Your task to perform on an android device: change keyboard looks Image 0: 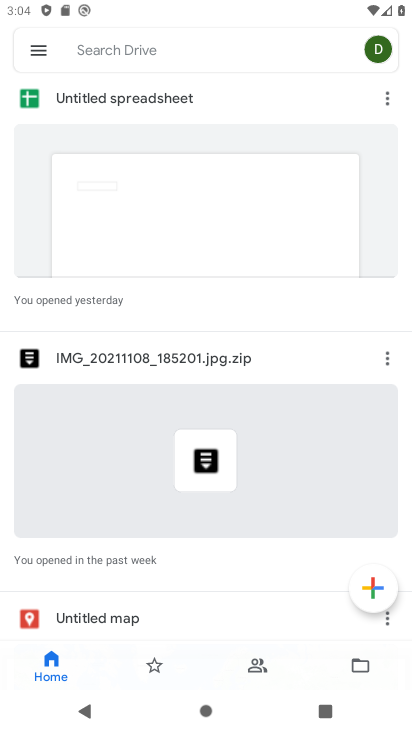
Step 0: press home button
Your task to perform on an android device: change keyboard looks Image 1: 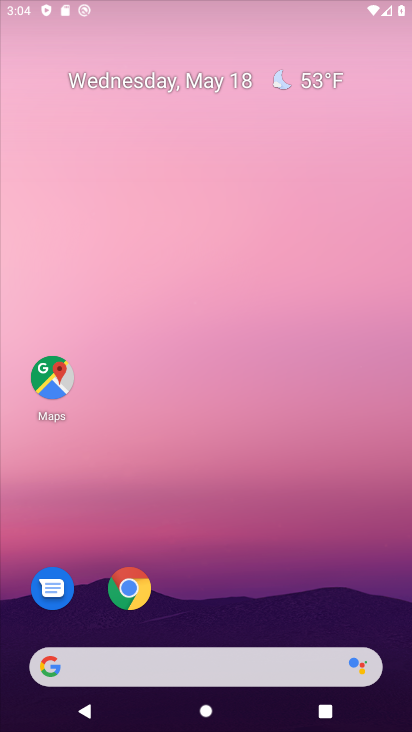
Step 1: drag from (270, 609) to (281, 38)
Your task to perform on an android device: change keyboard looks Image 2: 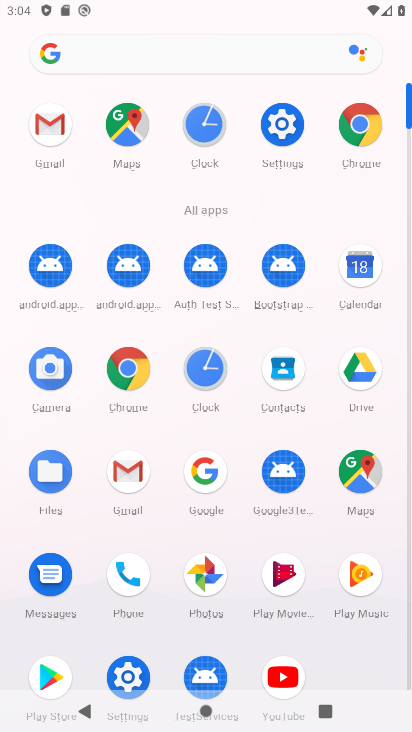
Step 2: click (118, 664)
Your task to perform on an android device: change keyboard looks Image 3: 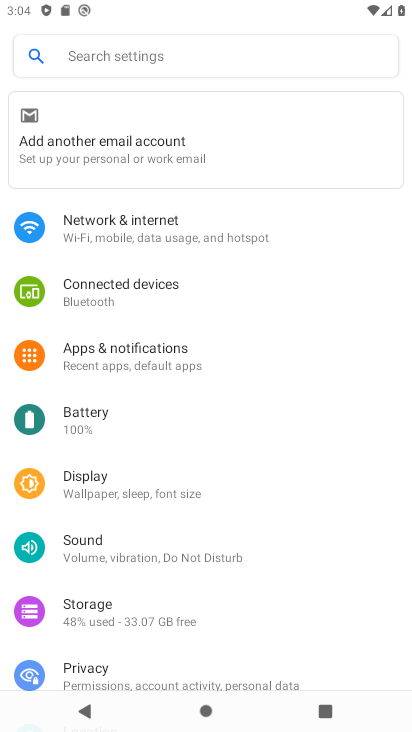
Step 3: drag from (198, 617) to (208, 90)
Your task to perform on an android device: change keyboard looks Image 4: 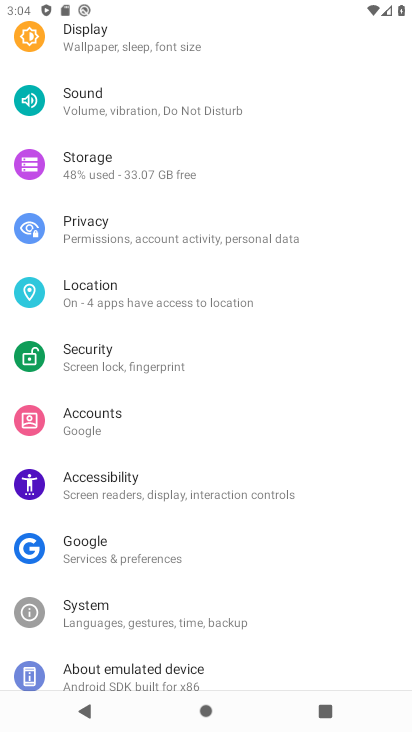
Step 4: click (166, 600)
Your task to perform on an android device: change keyboard looks Image 5: 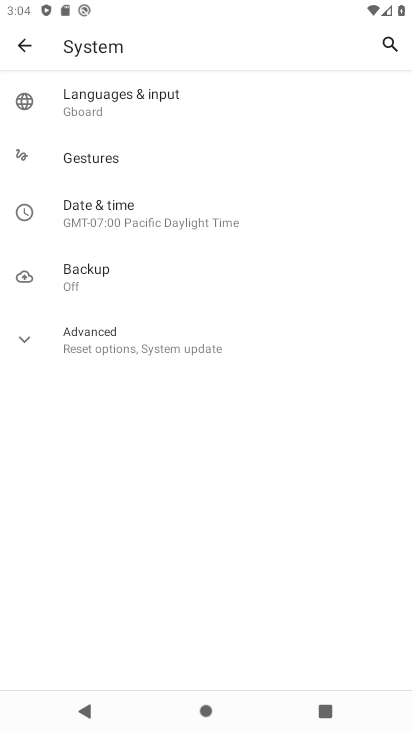
Step 5: click (153, 94)
Your task to perform on an android device: change keyboard looks Image 6: 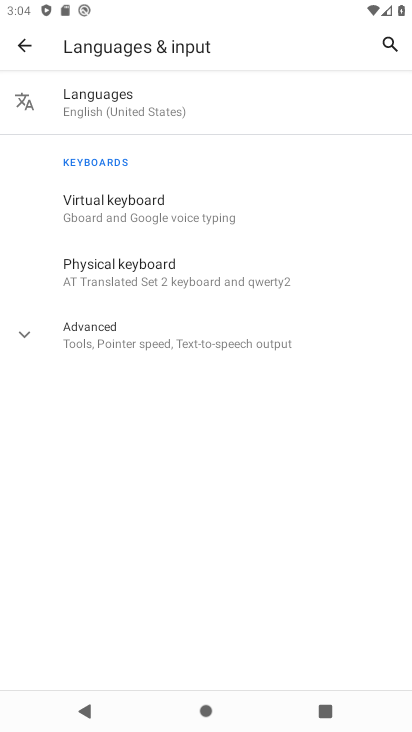
Step 6: click (151, 211)
Your task to perform on an android device: change keyboard looks Image 7: 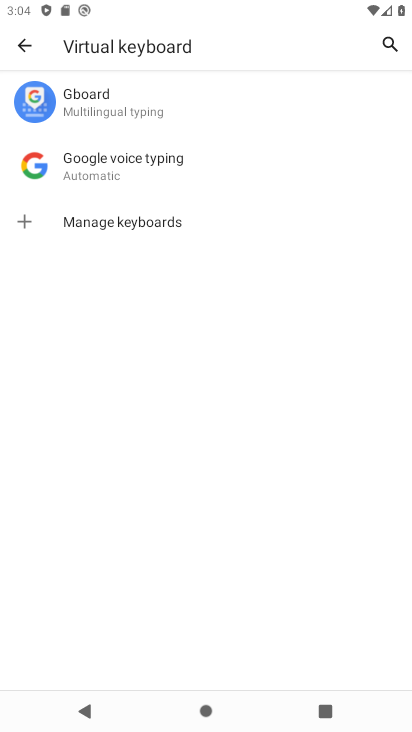
Step 7: click (99, 115)
Your task to perform on an android device: change keyboard looks Image 8: 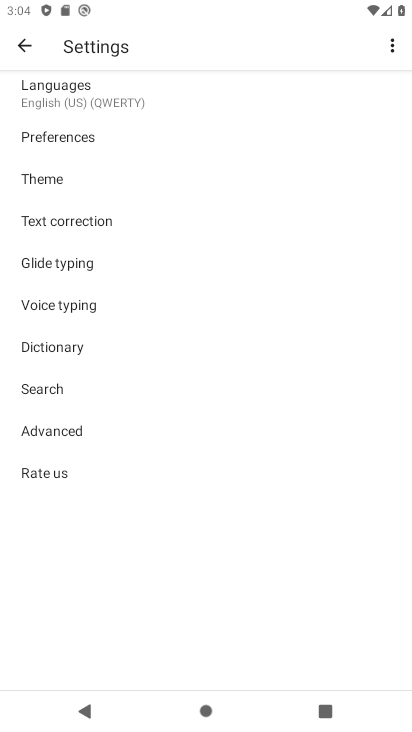
Step 8: click (95, 188)
Your task to perform on an android device: change keyboard looks Image 9: 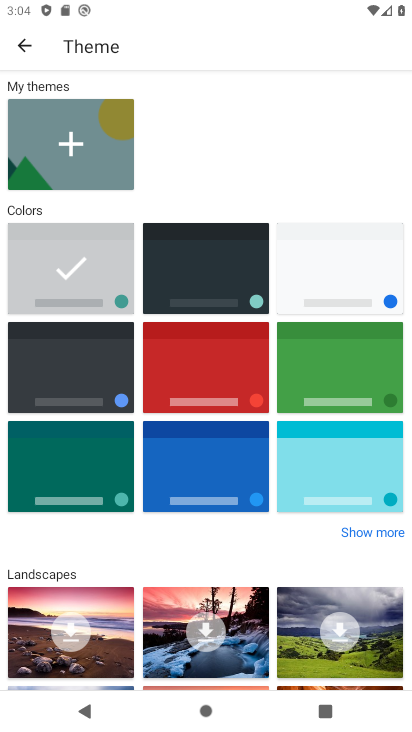
Step 9: click (209, 500)
Your task to perform on an android device: change keyboard looks Image 10: 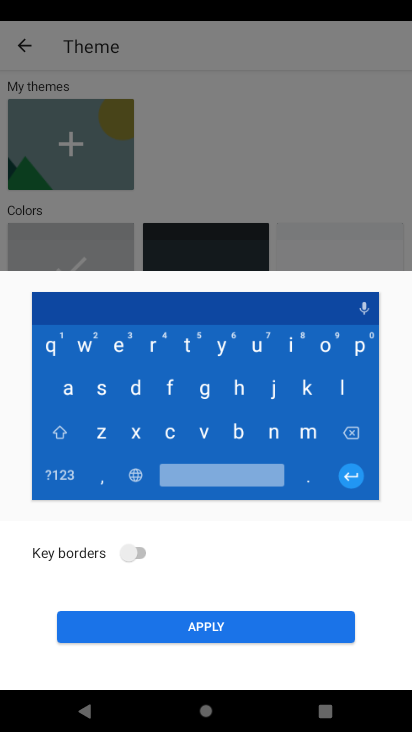
Step 10: click (128, 539)
Your task to perform on an android device: change keyboard looks Image 11: 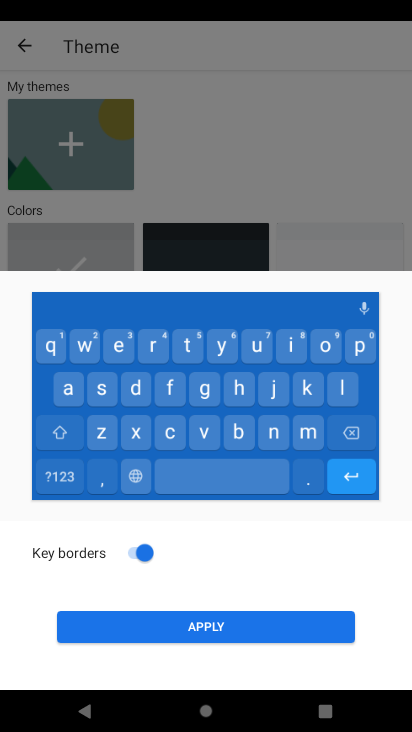
Step 11: click (161, 634)
Your task to perform on an android device: change keyboard looks Image 12: 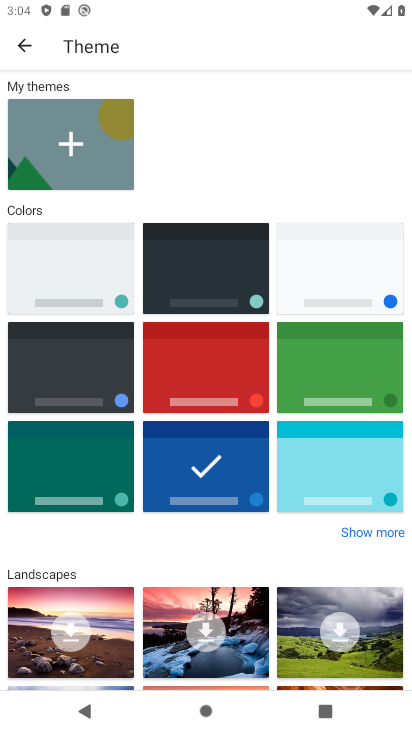
Step 12: task complete